Your task to perform on an android device: open wifi settings Image 0: 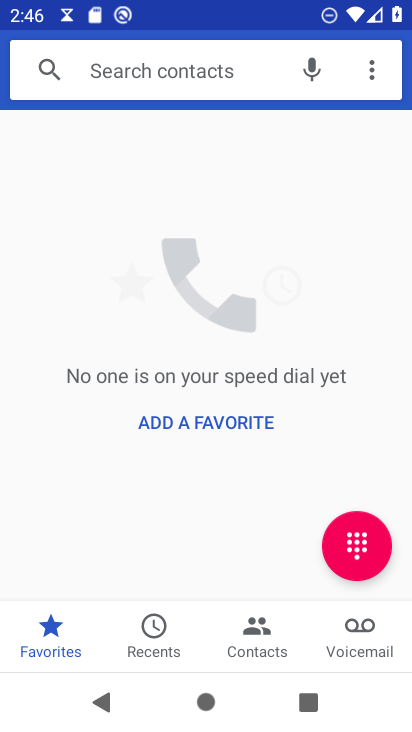
Step 0: press home button
Your task to perform on an android device: open wifi settings Image 1: 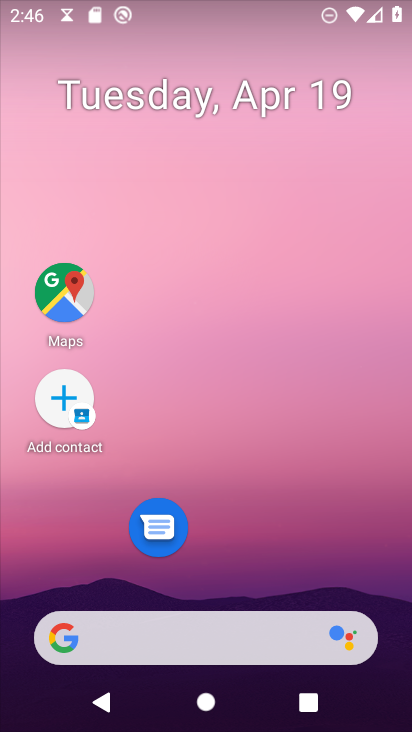
Step 1: drag from (244, 550) to (232, 95)
Your task to perform on an android device: open wifi settings Image 2: 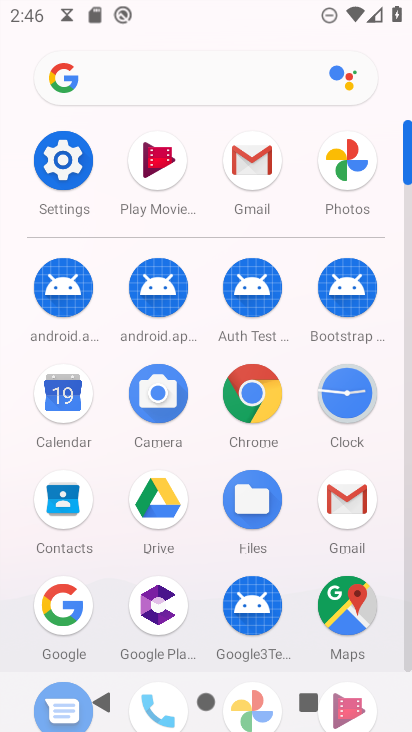
Step 2: click (66, 158)
Your task to perform on an android device: open wifi settings Image 3: 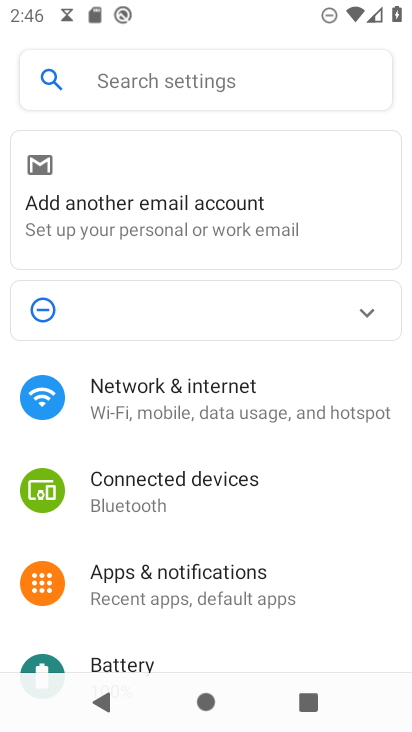
Step 3: click (165, 383)
Your task to perform on an android device: open wifi settings Image 4: 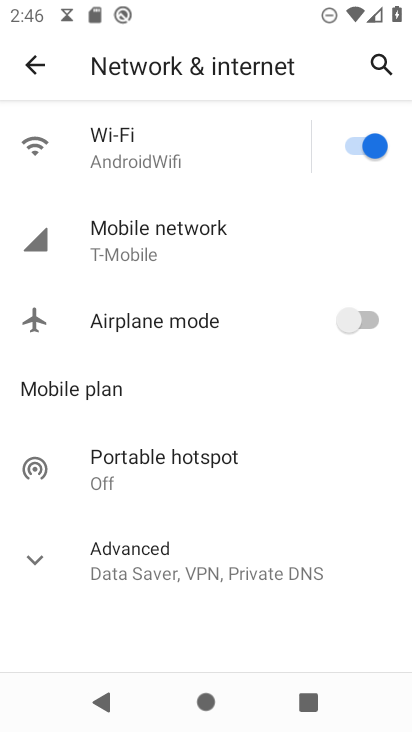
Step 4: click (133, 168)
Your task to perform on an android device: open wifi settings Image 5: 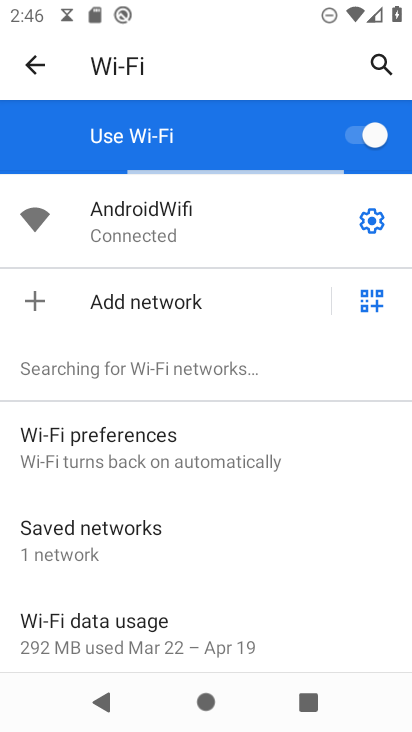
Step 5: click (373, 223)
Your task to perform on an android device: open wifi settings Image 6: 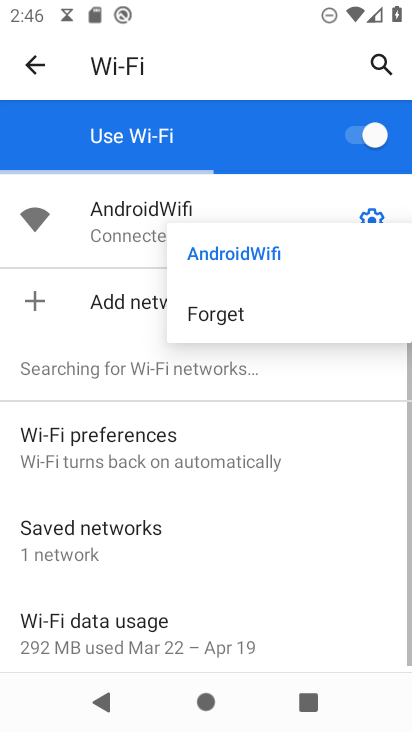
Step 6: click (378, 217)
Your task to perform on an android device: open wifi settings Image 7: 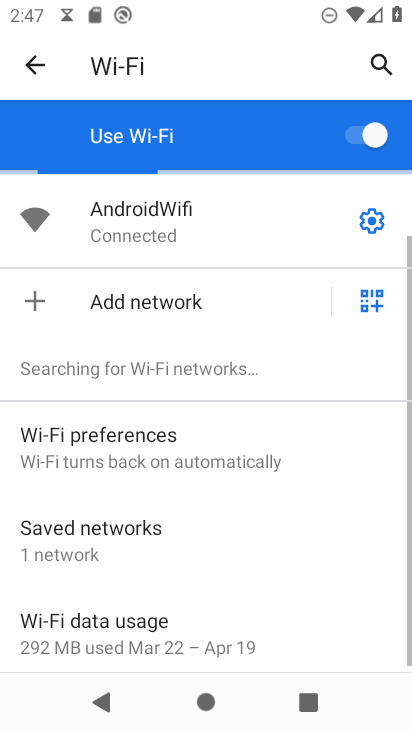
Step 7: click (378, 217)
Your task to perform on an android device: open wifi settings Image 8: 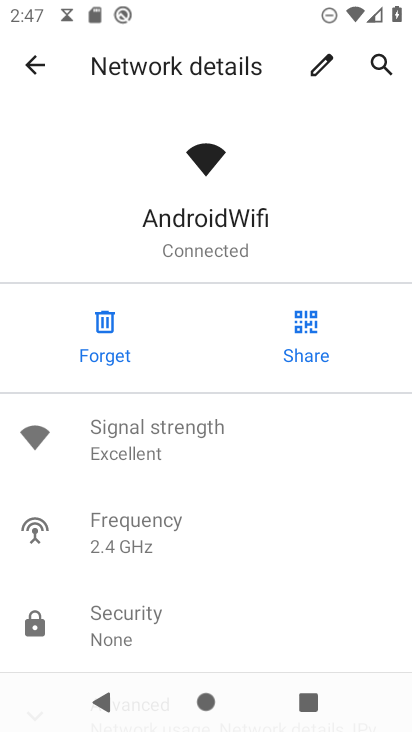
Step 8: task complete